Your task to perform on an android device: Open Chrome and go to the settings page Image 0: 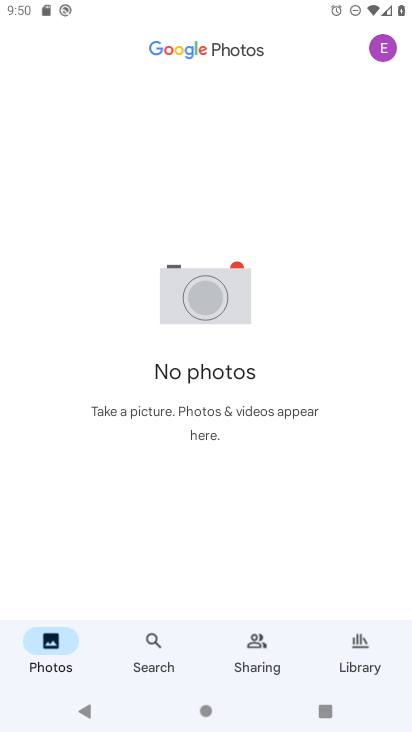
Step 0: press home button
Your task to perform on an android device: Open Chrome and go to the settings page Image 1: 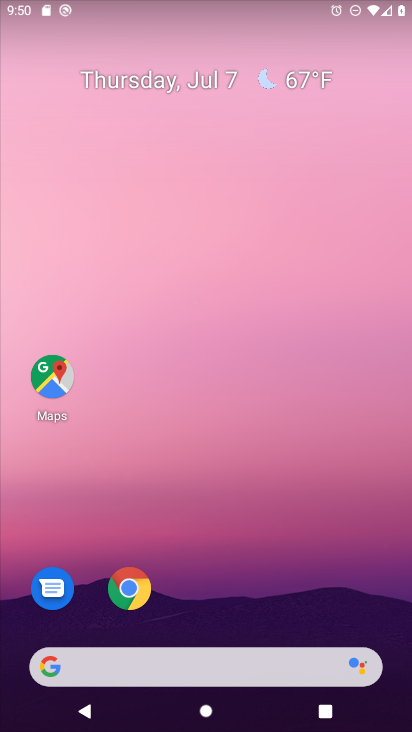
Step 1: click (129, 587)
Your task to perform on an android device: Open Chrome and go to the settings page Image 2: 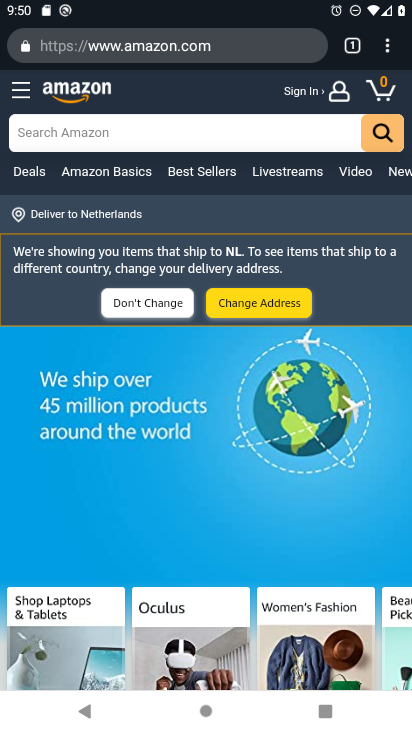
Step 2: click (389, 46)
Your task to perform on an android device: Open Chrome and go to the settings page Image 3: 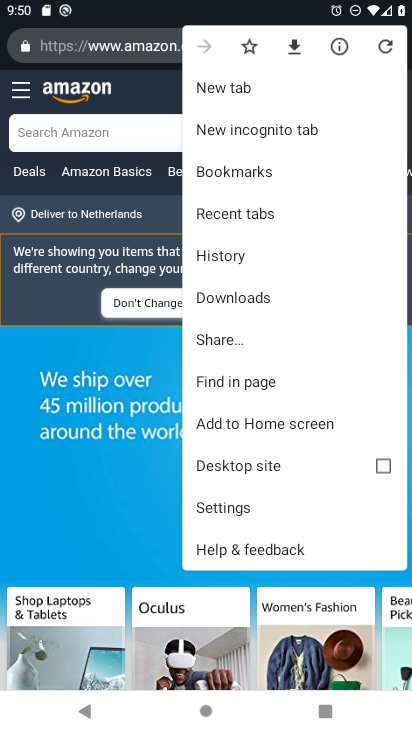
Step 3: click (232, 507)
Your task to perform on an android device: Open Chrome and go to the settings page Image 4: 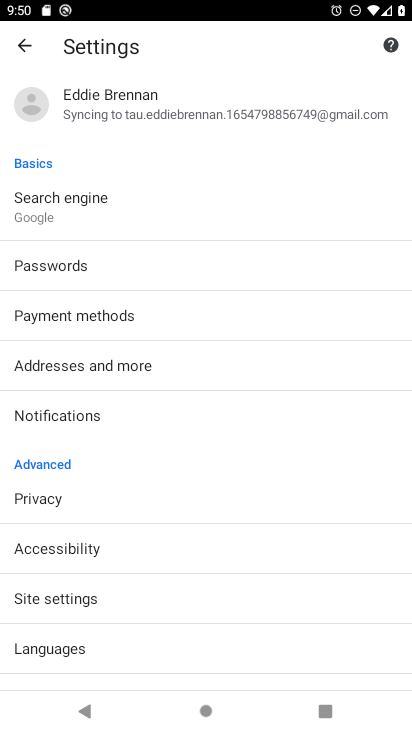
Step 4: task complete